Your task to perform on an android device: turn off notifications settings in the gmail app Image 0: 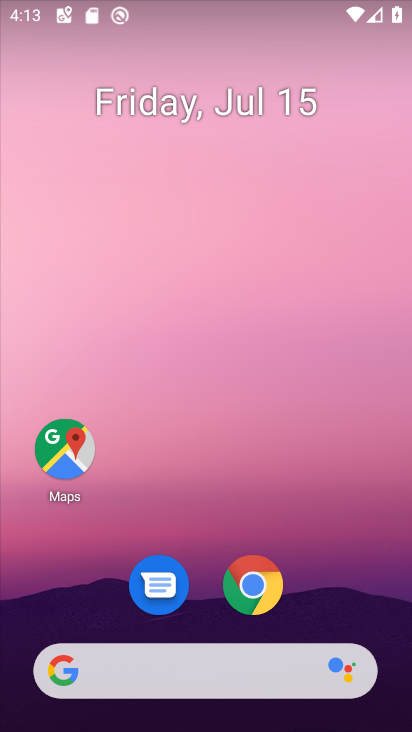
Step 0: drag from (317, 512) to (282, 42)
Your task to perform on an android device: turn off notifications settings in the gmail app Image 1: 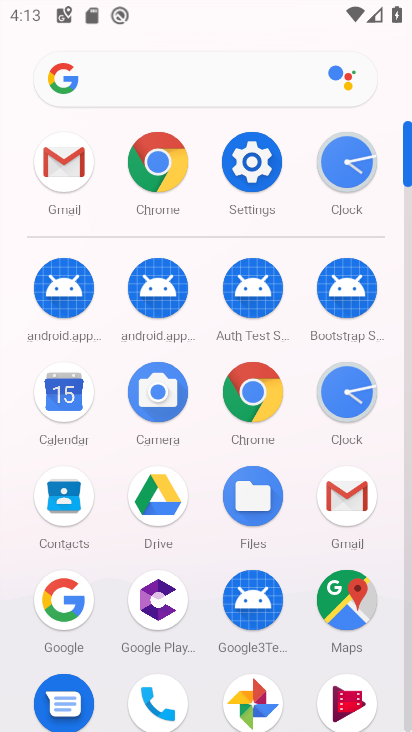
Step 1: click (71, 158)
Your task to perform on an android device: turn off notifications settings in the gmail app Image 2: 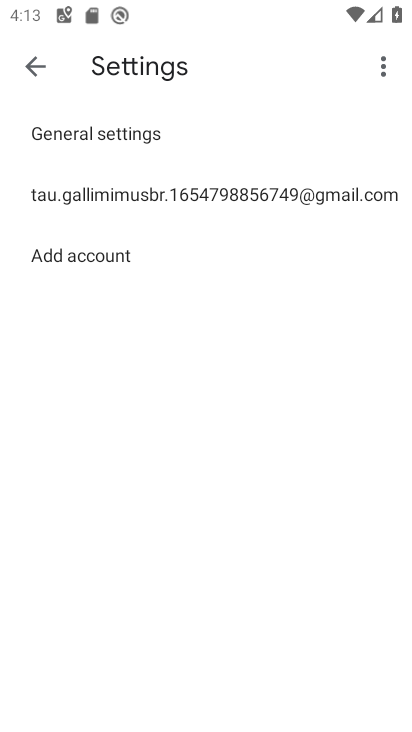
Step 2: click (149, 193)
Your task to perform on an android device: turn off notifications settings in the gmail app Image 3: 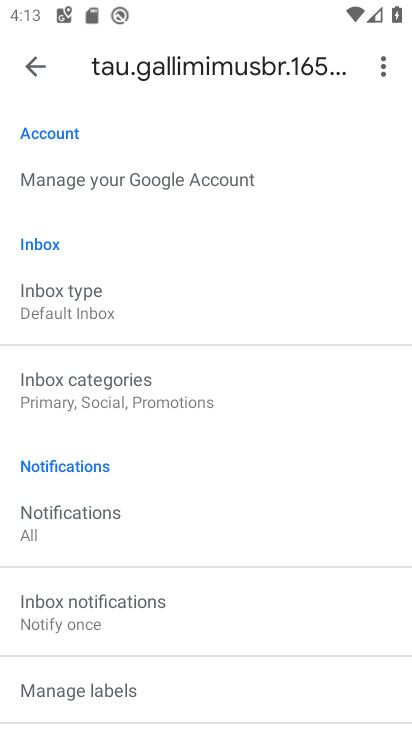
Step 3: drag from (208, 524) to (222, 218)
Your task to perform on an android device: turn off notifications settings in the gmail app Image 4: 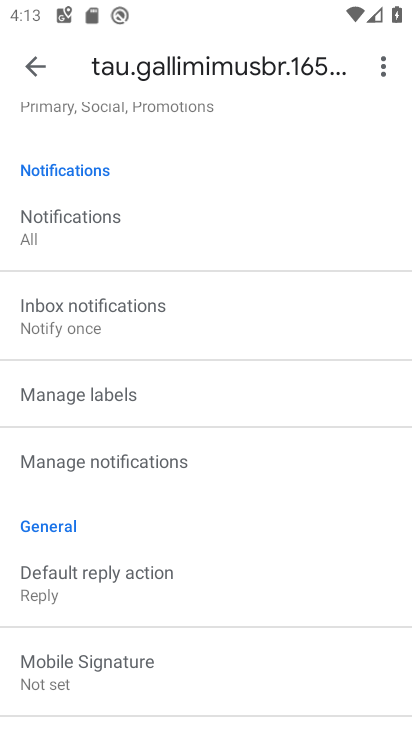
Step 4: click (194, 452)
Your task to perform on an android device: turn off notifications settings in the gmail app Image 5: 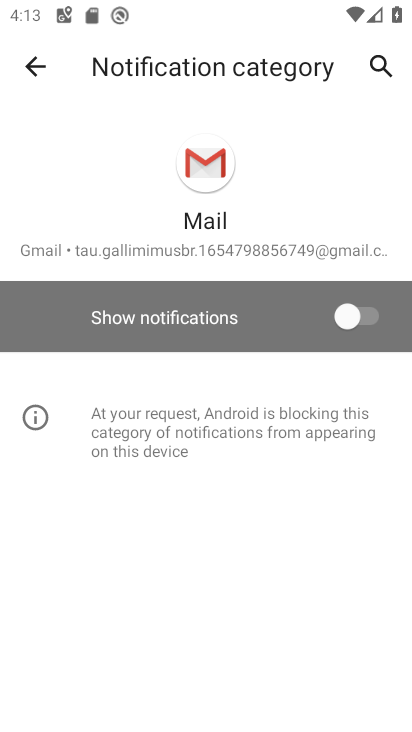
Step 5: click (361, 314)
Your task to perform on an android device: turn off notifications settings in the gmail app Image 6: 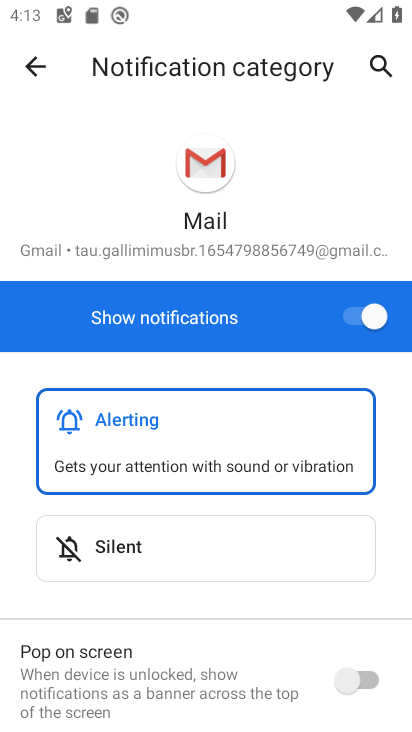
Step 6: click (357, 311)
Your task to perform on an android device: turn off notifications settings in the gmail app Image 7: 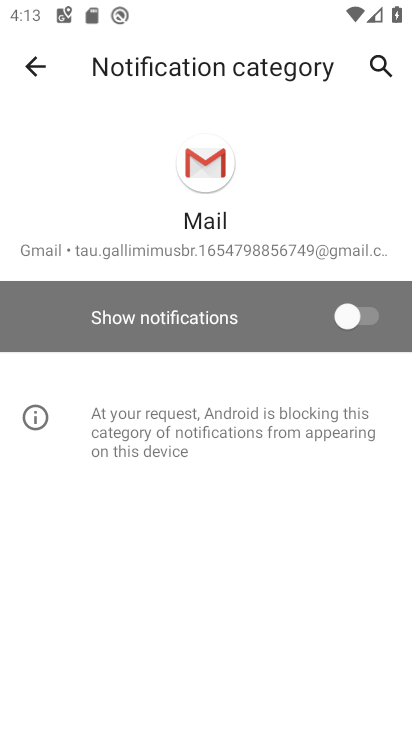
Step 7: task complete